Your task to perform on an android device: Open sound settings Image 0: 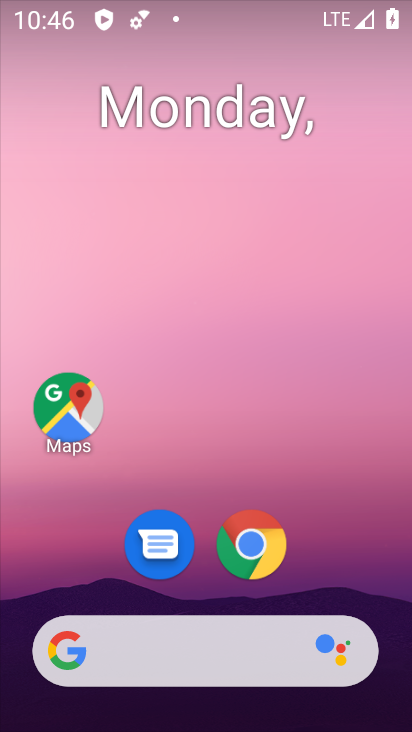
Step 0: drag from (411, 557) to (407, 299)
Your task to perform on an android device: Open sound settings Image 1: 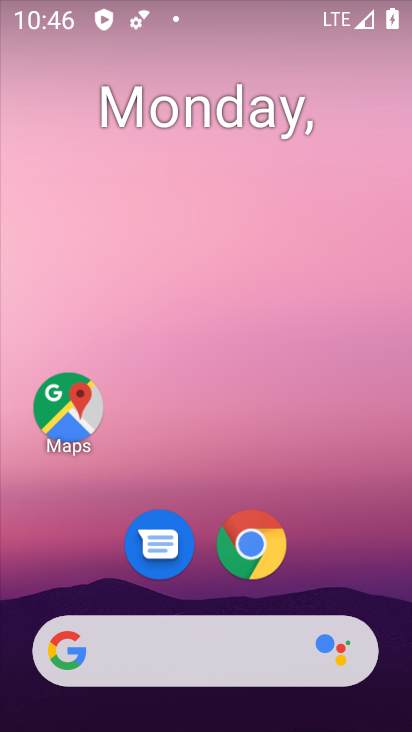
Step 1: drag from (394, 623) to (403, 407)
Your task to perform on an android device: Open sound settings Image 2: 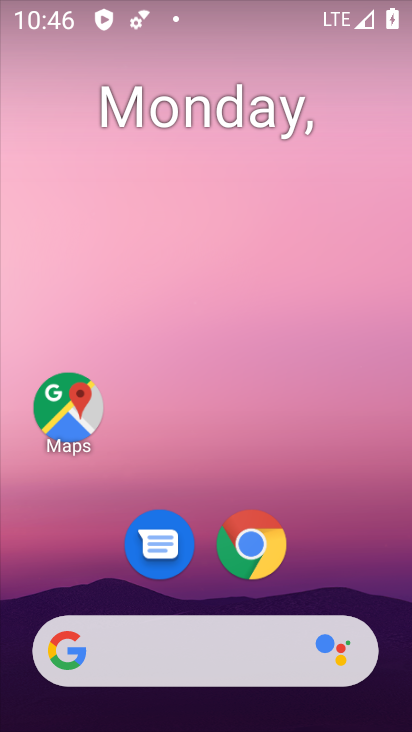
Step 2: drag from (396, 372) to (389, 249)
Your task to perform on an android device: Open sound settings Image 3: 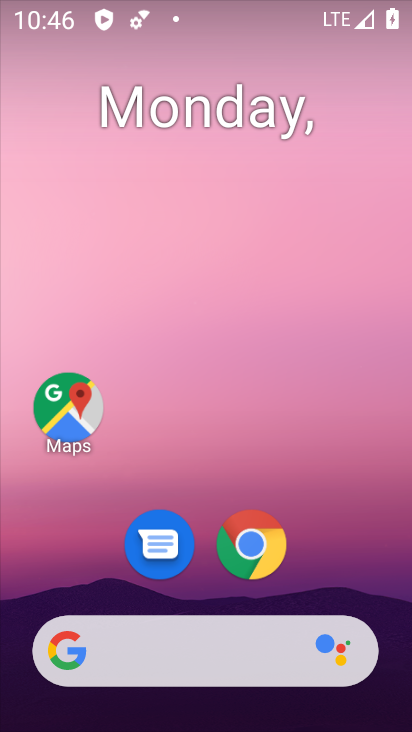
Step 3: click (392, 299)
Your task to perform on an android device: Open sound settings Image 4: 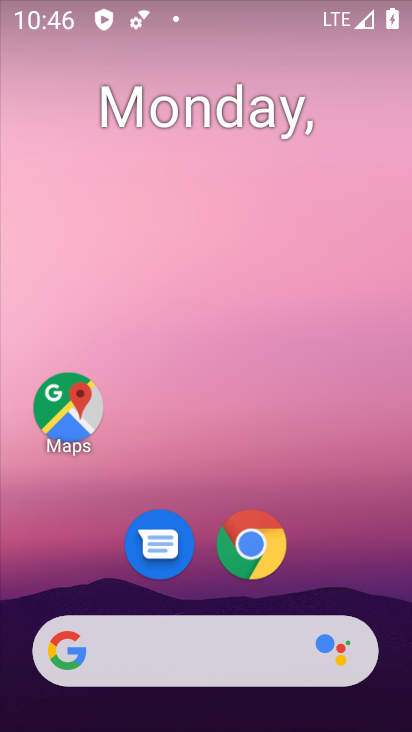
Step 4: drag from (394, 660) to (399, 257)
Your task to perform on an android device: Open sound settings Image 5: 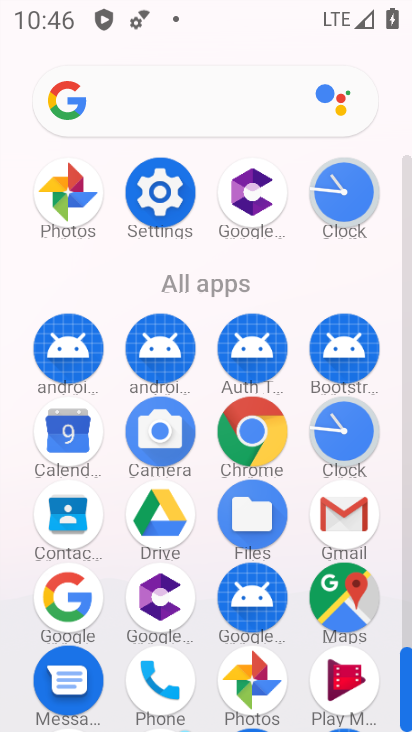
Step 5: click (163, 202)
Your task to perform on an android device: Open sound settings Image 6: 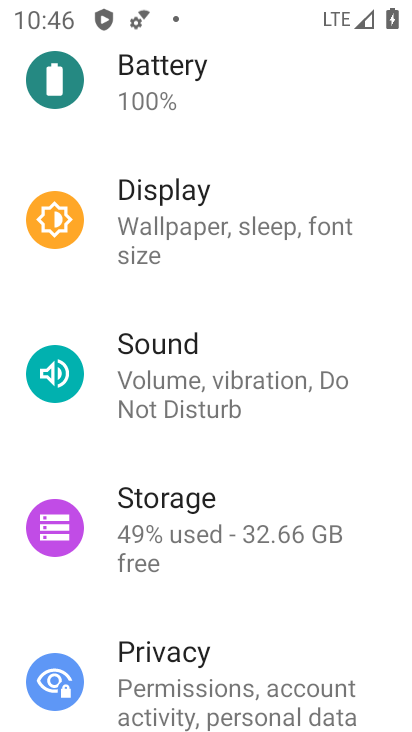
Step 6: click (156, 358)
Your task to perform on an android device: Open sound settings Image 7: 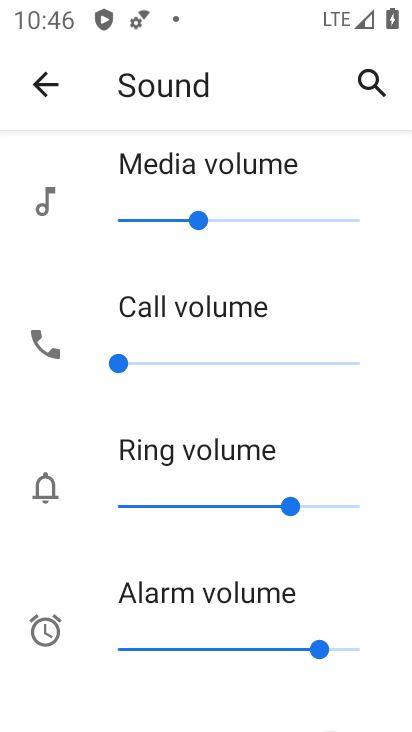
Step 7: task complete